Your task to perform on an android device: Show me popular videos on Youtube Image 0: 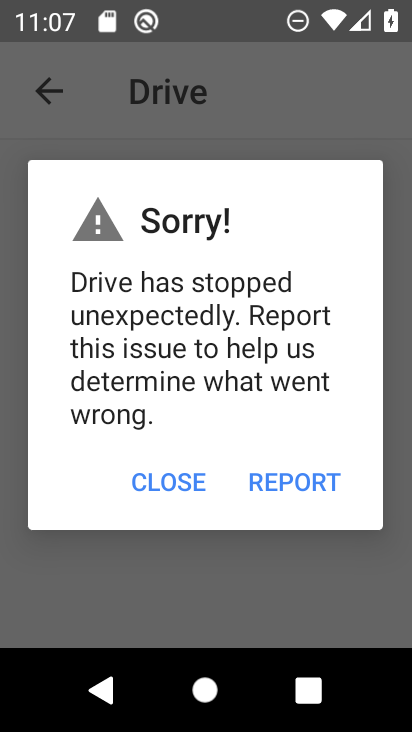
Step 0: press home button
Your task to perform on an android device: Show me popular videos on Youtube Image 1: 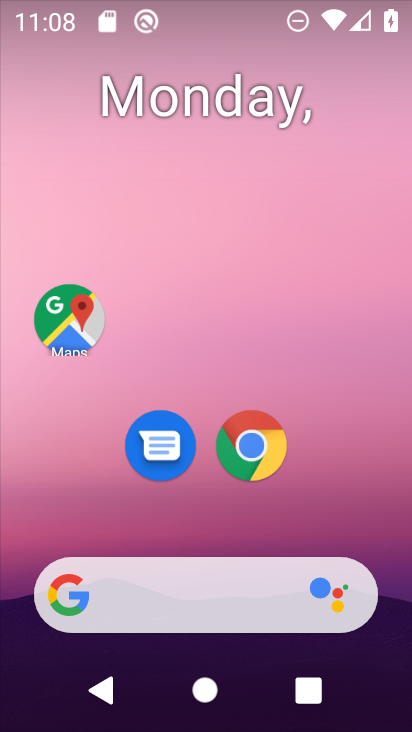
Step 1: drag from (201, 546) to (215, 119)
Your task to perform on an android device: Show me popular videos on Youtube Image 2: 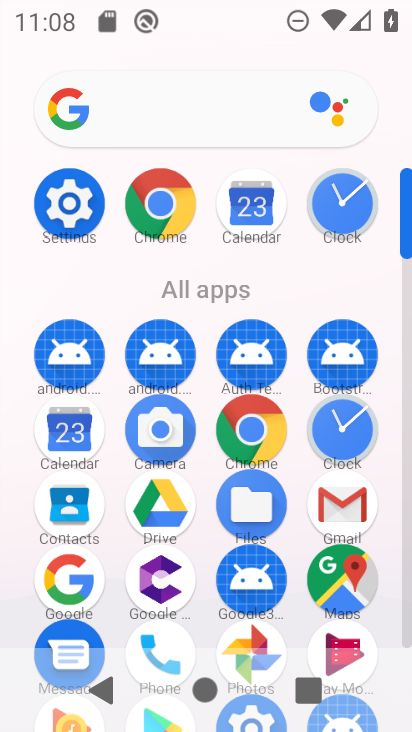
Step 2: drag from (122, 467) to (191, 243)
Your task to perform on an android device: Show me popular videos on Youtube Image 3: 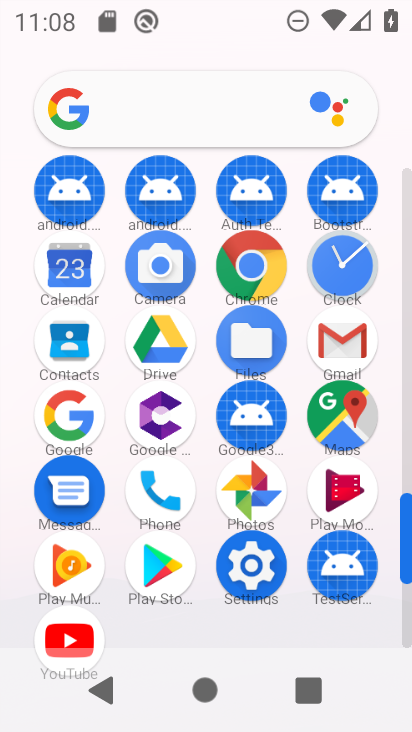
Step 3: click (84, 623)
Your task to perform on an android device: Show me popular videos on Youtube Image 4: 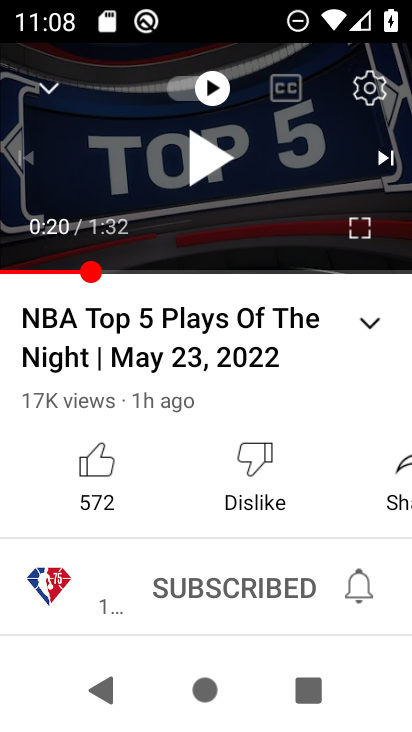
Step 4: click (105, 685)
Your task to perform on an android device: Show me popular videos on Youtube Image 5: 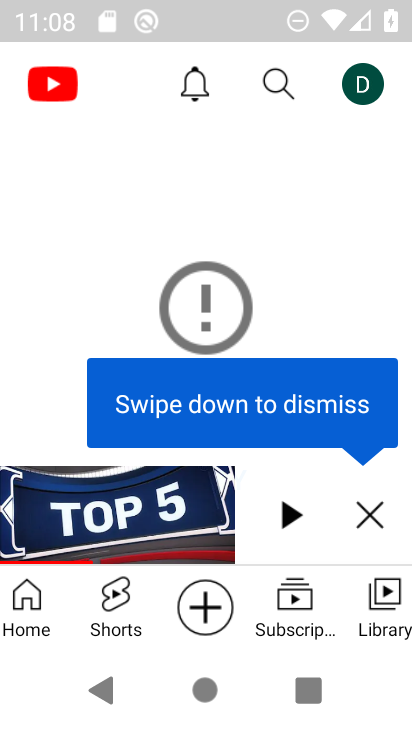
Step 5: click (288, 91)
Your task to perform on an android device: Show me popular videos on Youtube Image 6: 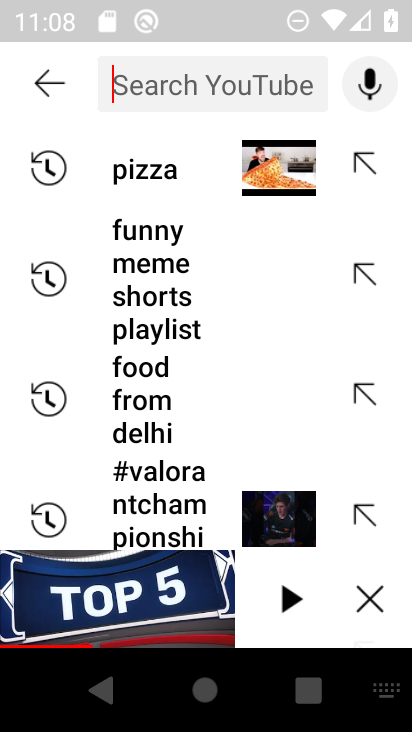
Step 6: click (212, 73)
Your task to perform on an android device: Show me popular videos on Youtube Image 7: 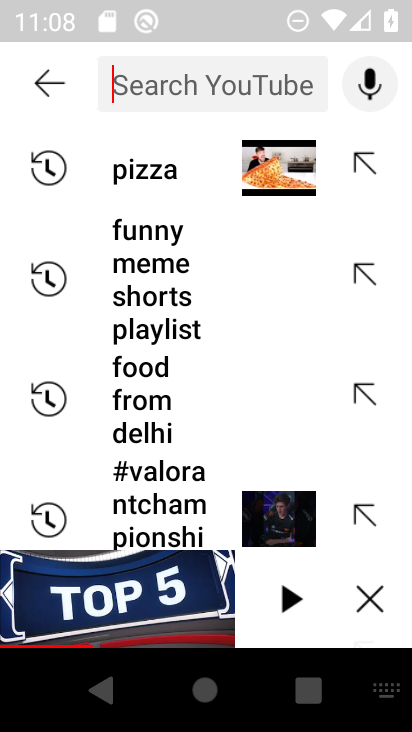
Step 7: type "popular videos "
Your task to perform on an android device: Show me popular videos on Youtube Image 8: 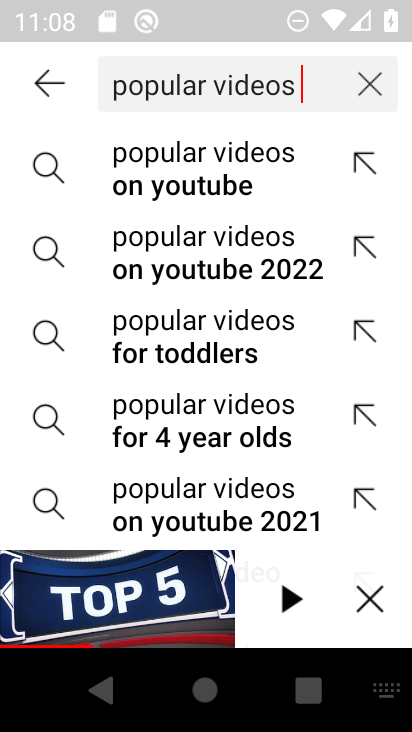
Step 8: click (198, 191)
Your task to perform on an android device: Show me popular videos on Youtube Image 9: 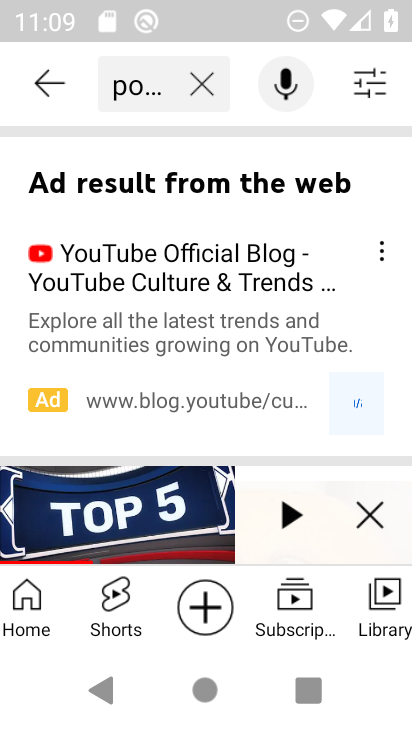
Step 9: task complete